Your task to perform on an android device: install app "Duolingo: language lessons" Image 0: 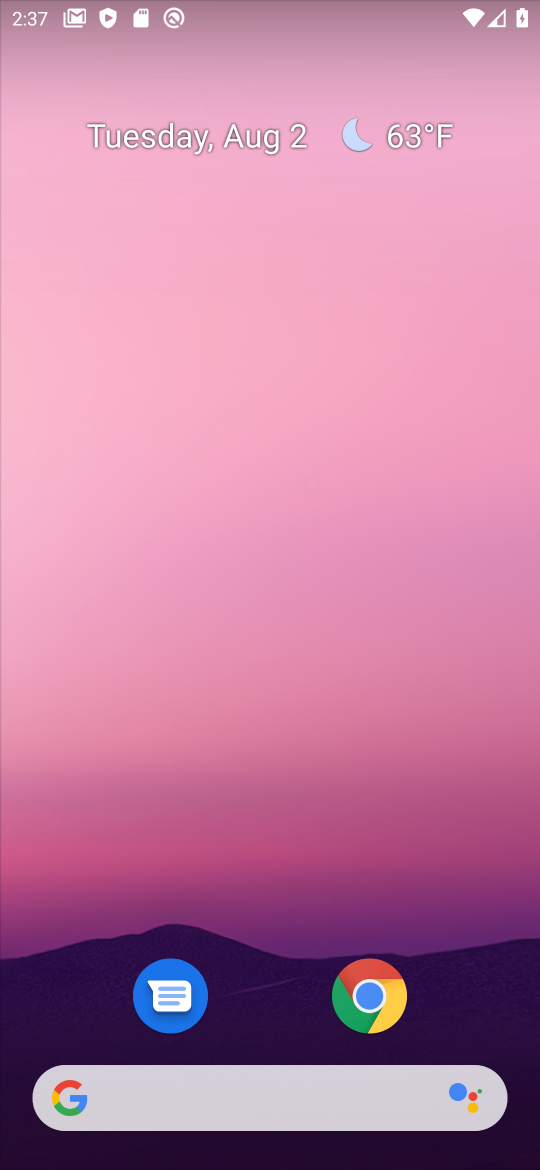
Step 0: drag from (250, 785) to (200, 223)
Your task to perform on an android device: install app "Duolingo: language lessons" Image 1: 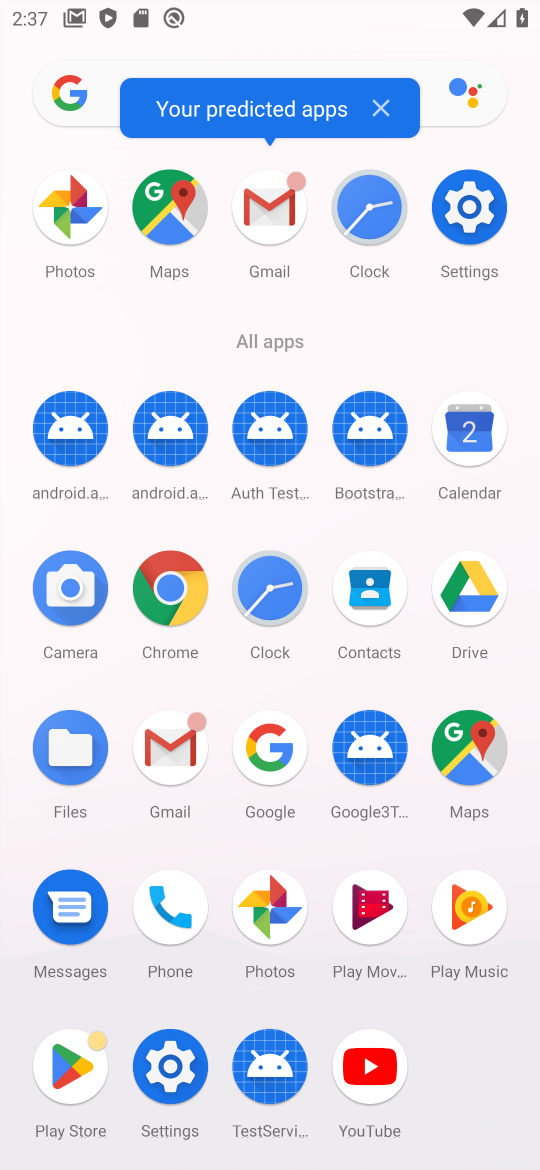
Step 1: drag from (66, 1052) to (306, 318)
Your task to perform on an android device: install app "Duolingo: language lessons" Image 2: 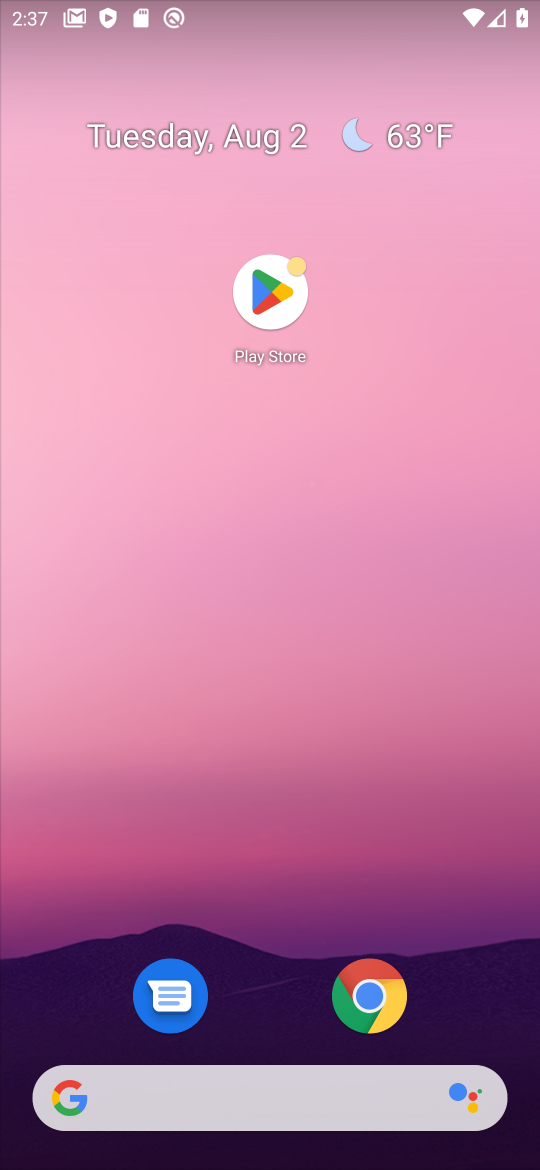
Step 2: click (281, 290)
Your task to perform on an android device: install app "Duolingo: language lessons" Image 3: 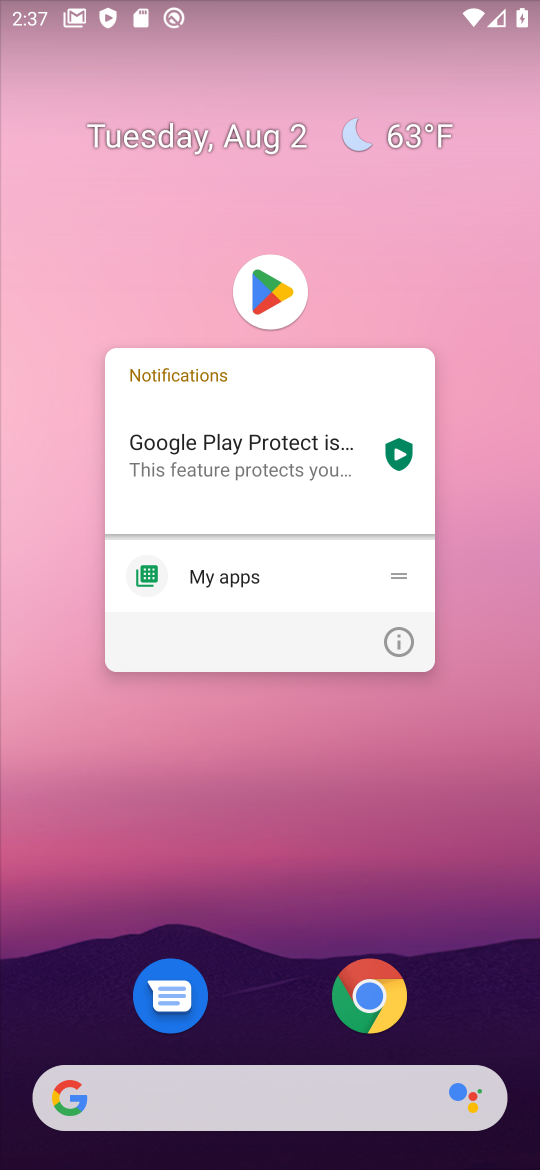
Step 3: click (291, 282)
Your task to perform on an android device: install app "Duolingo: language lessons" Image 4: 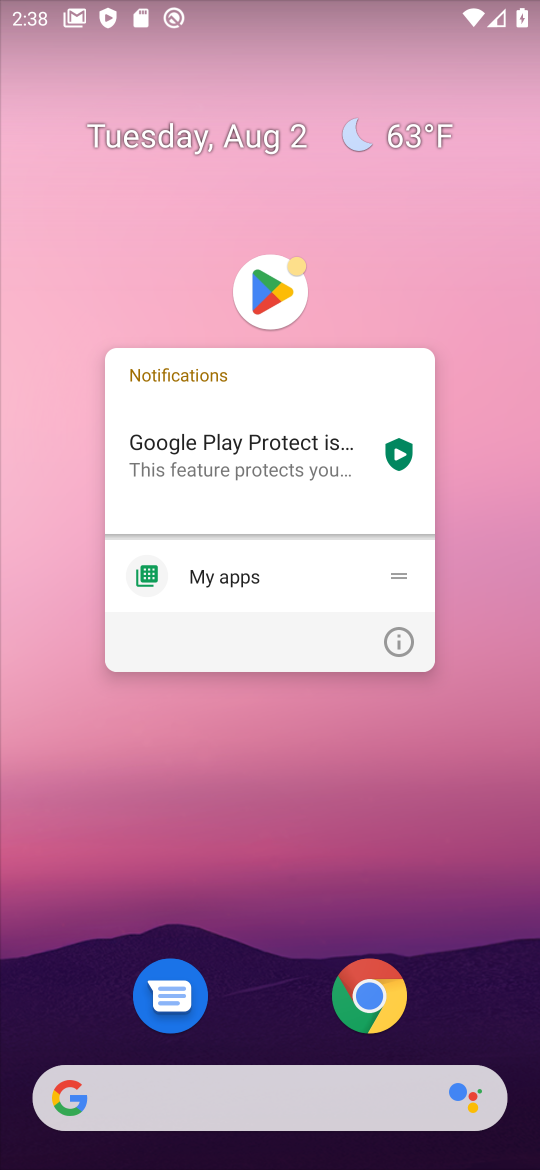
Step 4: click (273, 264)
Your task to perform on an android device: install app "Duolingo: language lessons" Image 5: 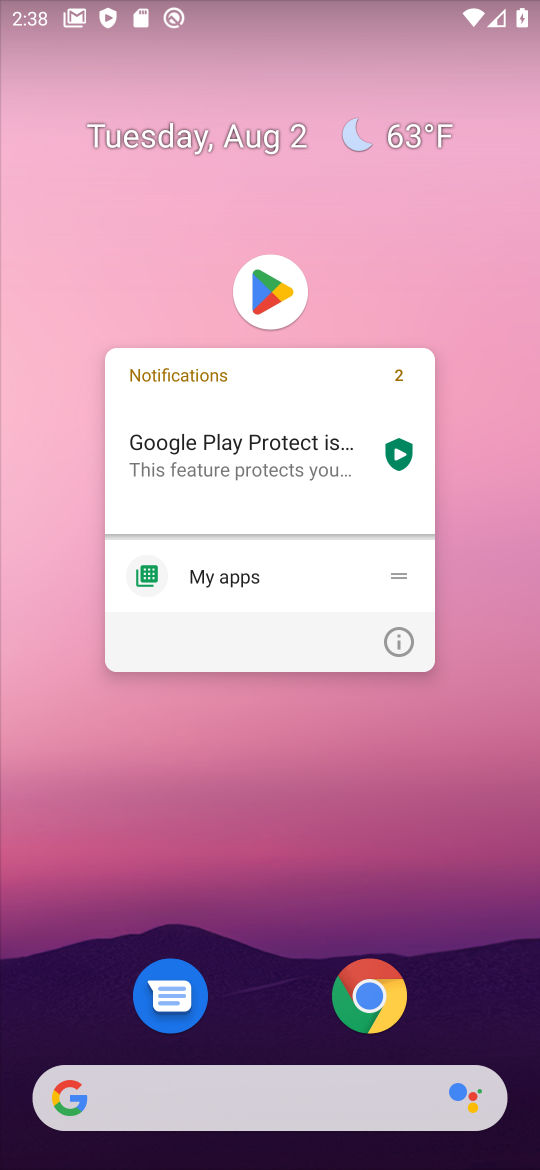
Step 5: click (275, 308)
Your task to perform on an android device: install app "Duolingo: language lessons" Image 6: 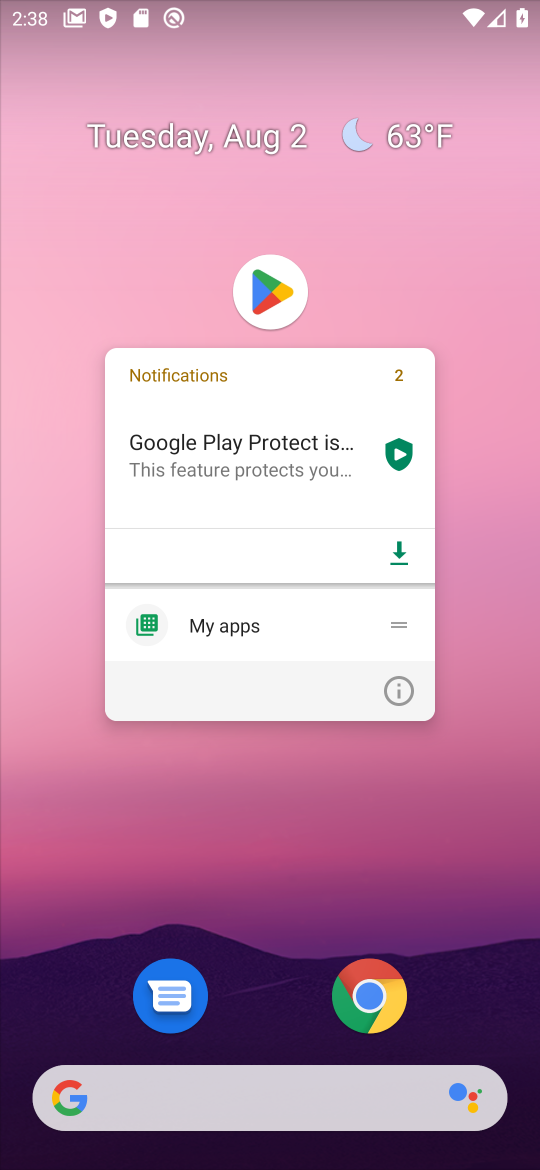
Step 6: click (275, 308)
Your task to perform on an android device: install app "Duolingo: language lessons" Image 7: 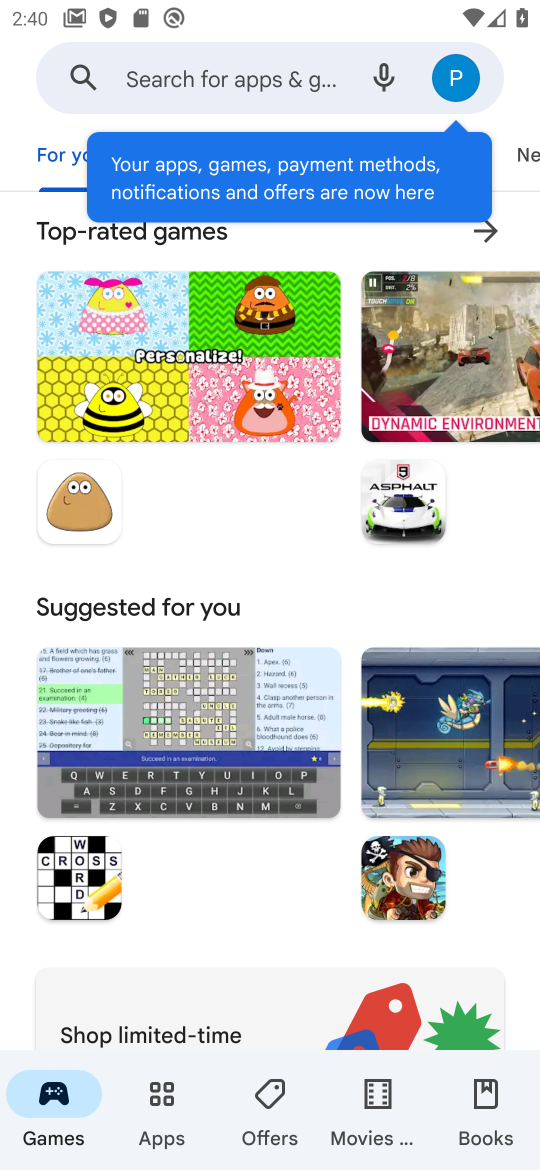
Step 7: click (221, 80)
Your task to perform on an android device: install app "Duolingo: language lessons" Image 8: 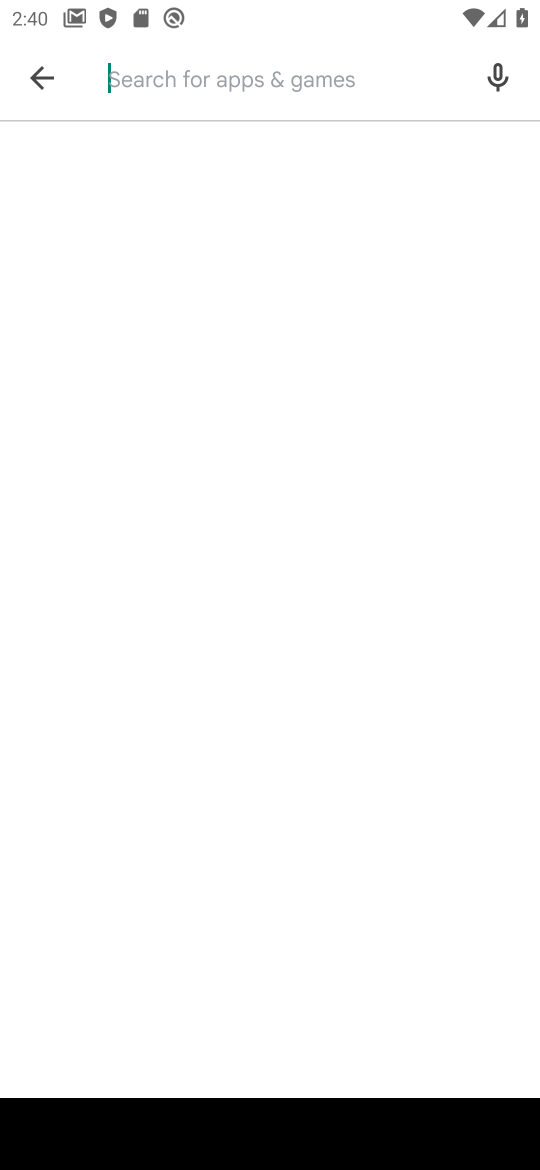
Step 8: type "duolingo"
Your task to perform on an android device: install app "Duolingo: language lessons" Image 9: 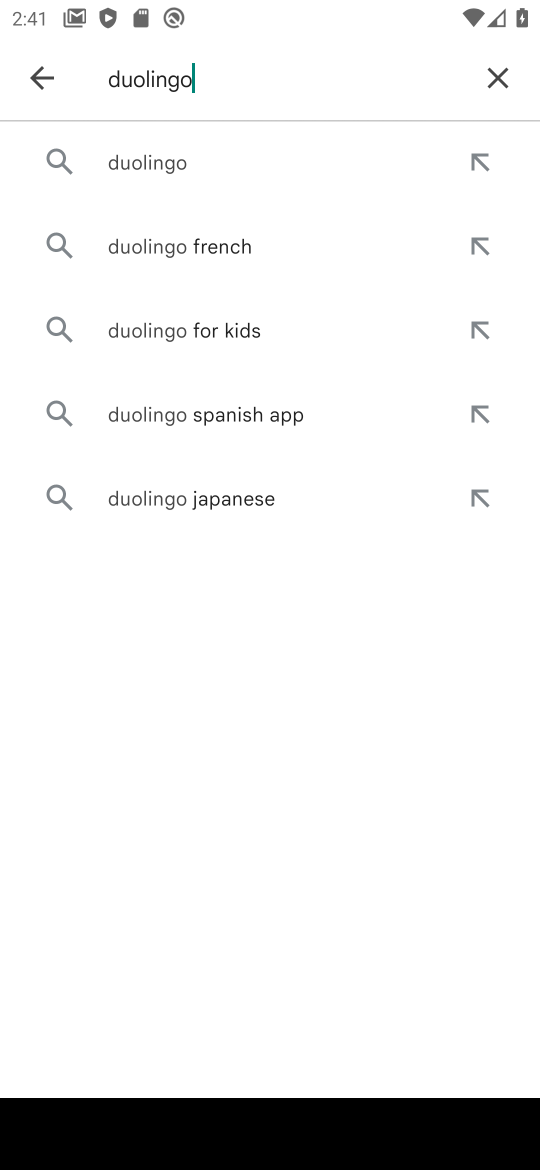
Step 9: type "language"
Your task to perform on an android device: install app "Duolingo: language lessons" Image 10: 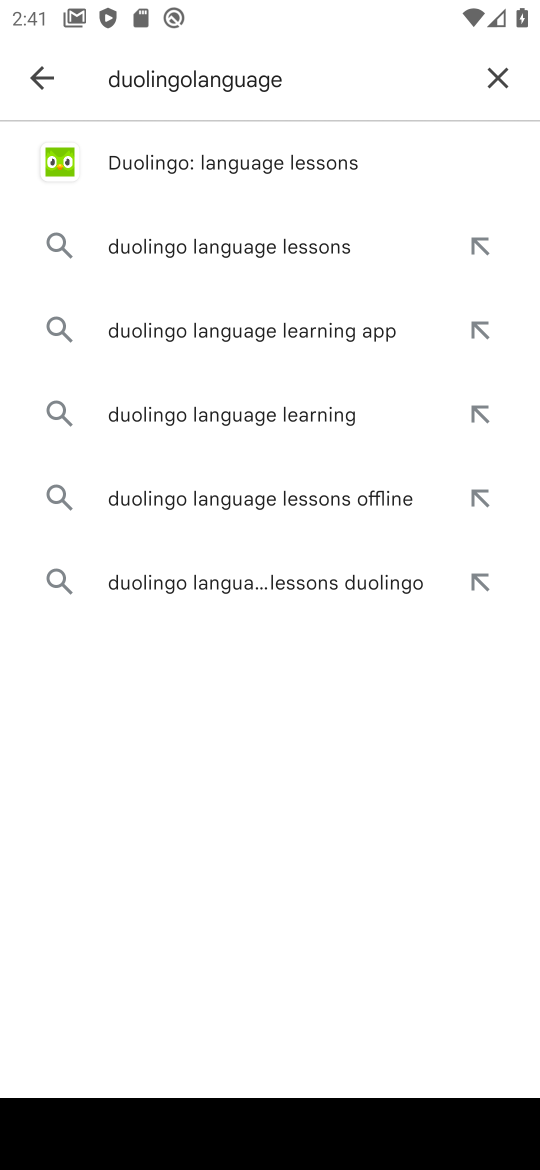
Step 10: click (280, 175)
Your task to perform on an android device: install app "Duolingo: language lessons" Image 11: 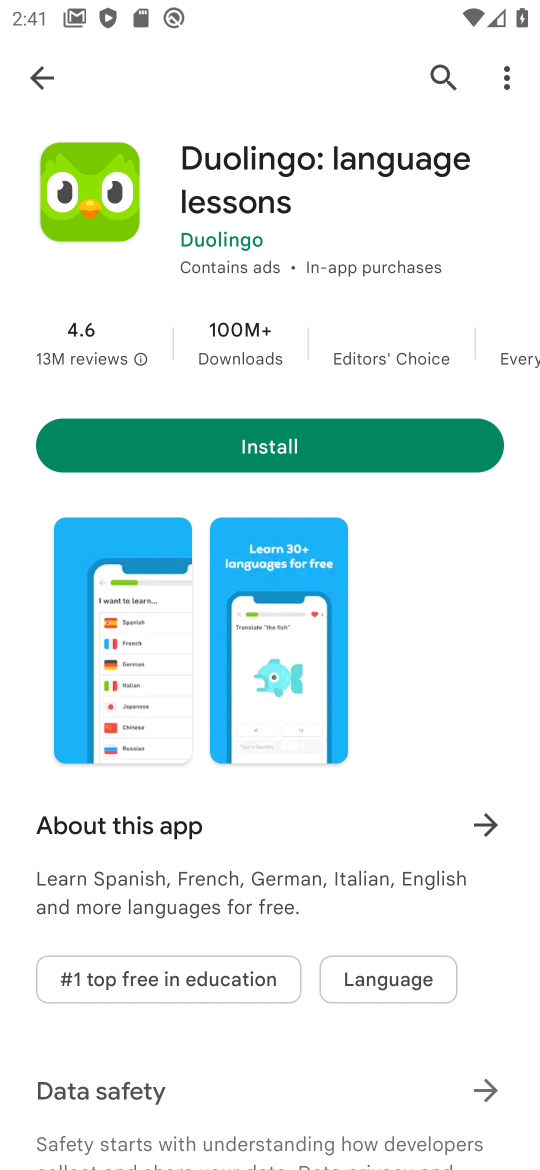
Step 11: click (370, 464)
Your task to perform on an android device: install app "Duolingo: language lessons" Image 12: 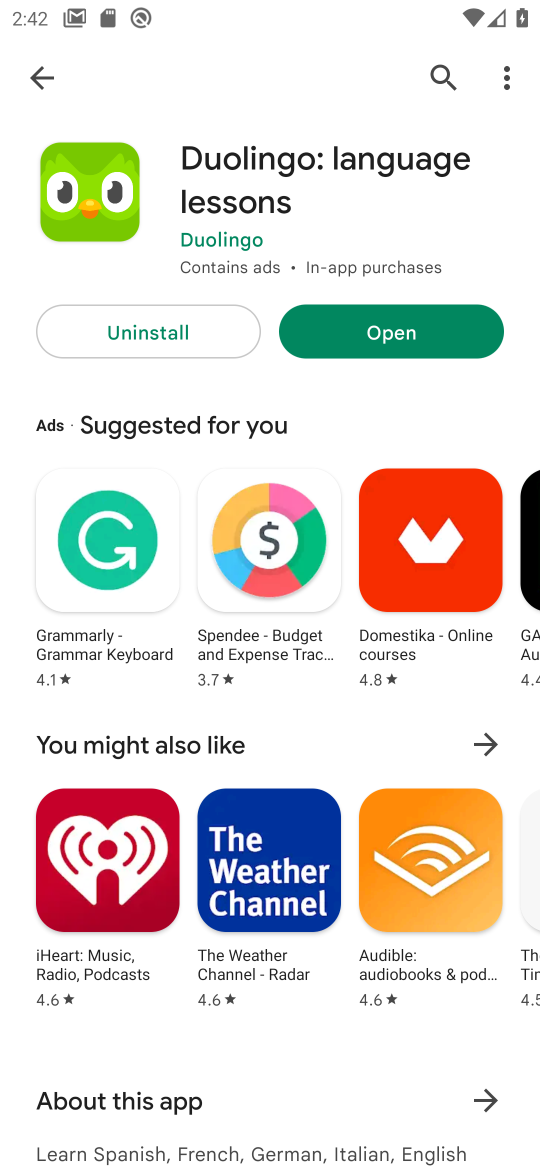
Step 12: task complete